Your task to perform on an android device: change alarm snooze length Image 0: 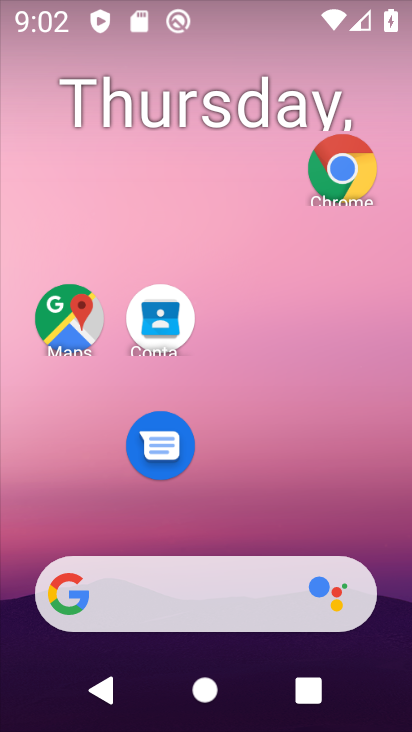
Step 0: drag from (262, 655) to (300, 339)
Your task to perform on an android device: change alarm snooze length Image 1: 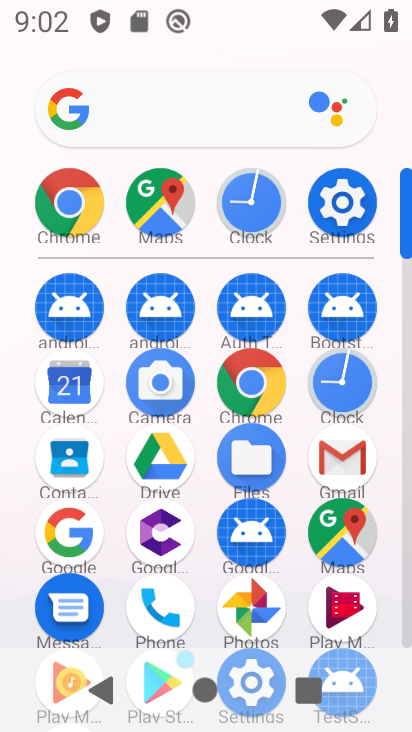
Step 1: click (340, 379)
Your task to perform on an android device: change alarm snooze length Image 2: 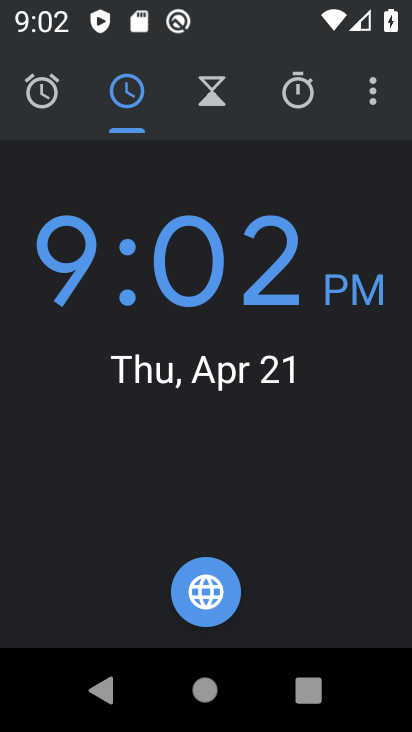
Step 2: click (374, 86)
Your task to perform on an android device: change alarm snooze length Image 3: 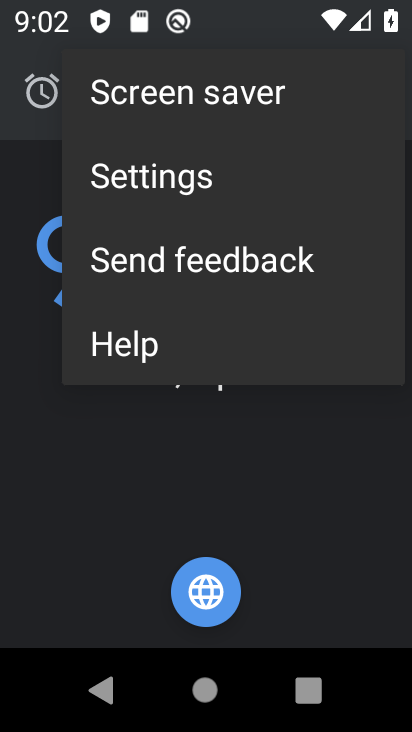
Step 3: click (178, 165)
Your task to perform on an android device: change alarm snooze length Image 4: 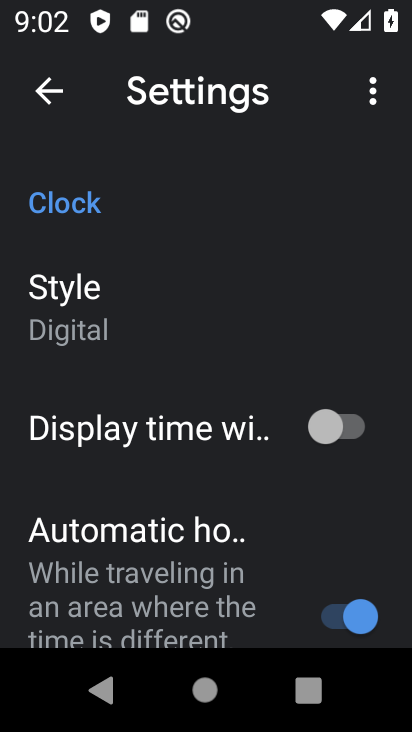
Step 4: drag from (148, 560) to (212, 251)
Your task to perform on an android device: change alarm snooze length Image 5: 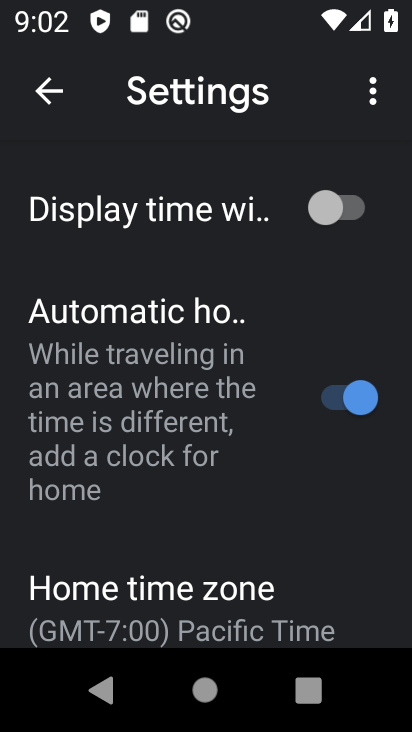
Step 5: drag from (187, 499) to (236, 189)
Your task to perform on an android device: change alarm snooze length Image 6: 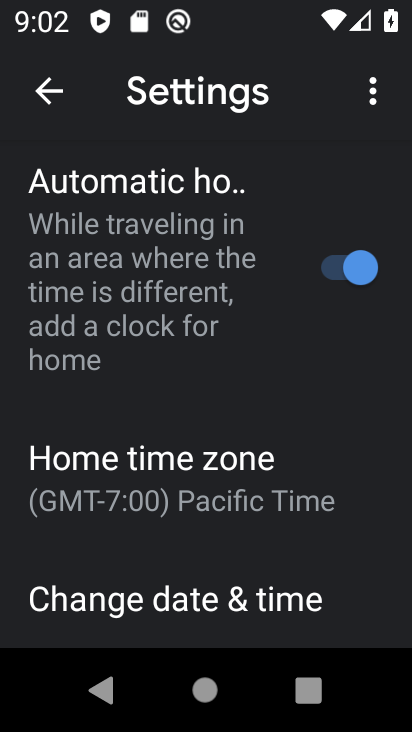
Step 6: drag from (164, 457) to (200, 262)
Your task to perform on an android device: change alarm snooze length Image 7: 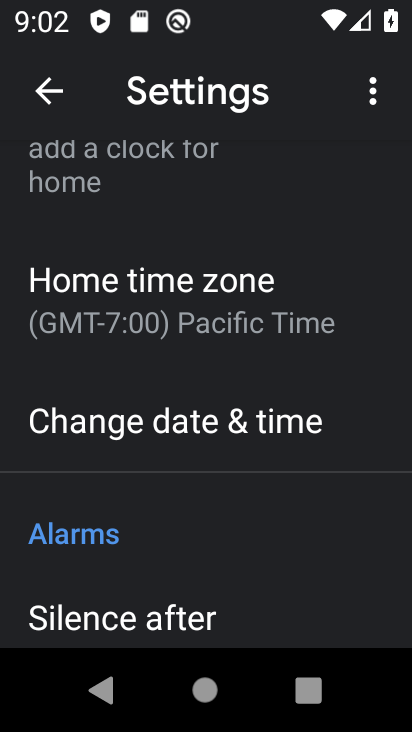
Step 7: drag from (141, 510) to (190, 336)
Your task to perform on an android device: change alarm snooze length Image 8: 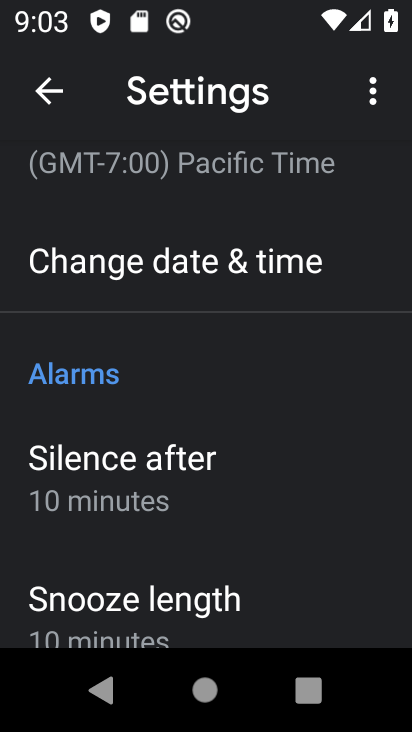
Step 8: drag from (234, 451) to (264, 284)
Your task to perform on an android device: change alarm snooze length Image 9: 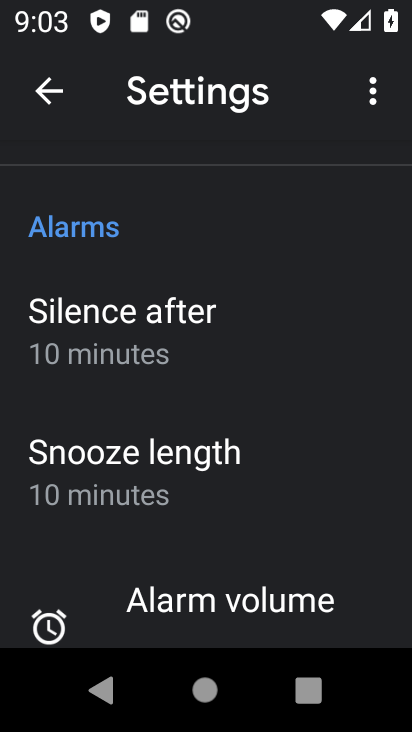
Step 9: click (180, 455)
Your task to perform on an android device: change alarm snooze length Image 10: 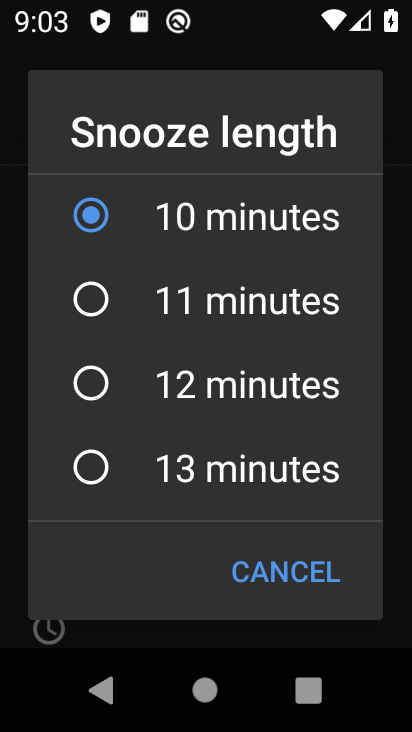
Step 10: click (160, 315)
Your task to perform on an android device: change alarm snooze length Image 11: 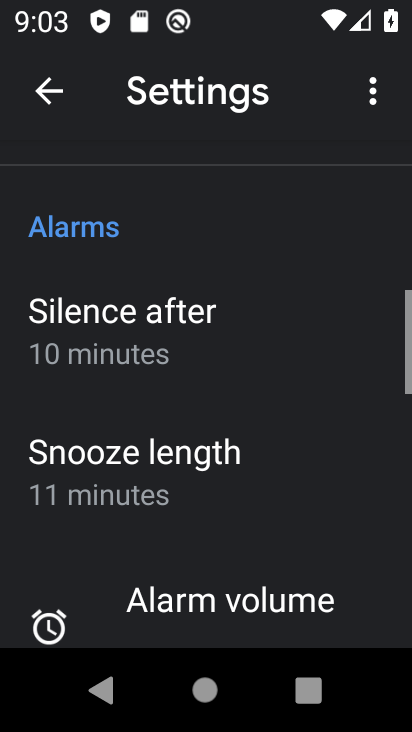
Step 11: task complete